Your task to perform on an android device: Go to ESPN.com Image 0: 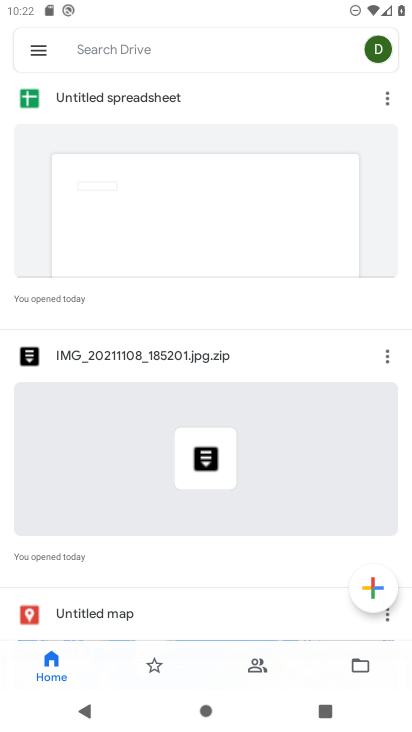
Step 0: press home button
Your task to perform on an android device: Go to ESPN.com Image 1: 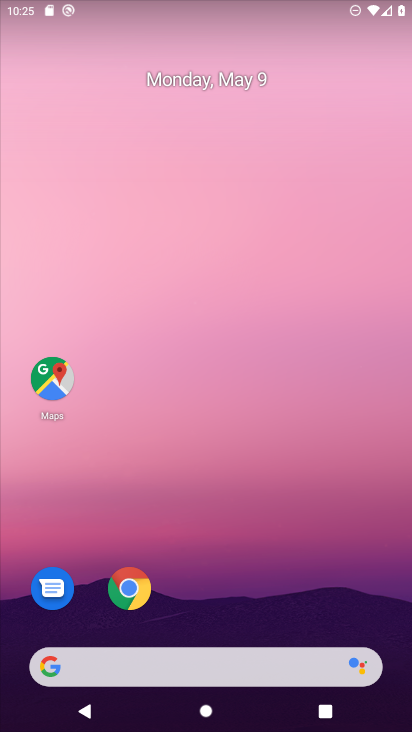
Step 1: click (139, 592)
Your task to perform on an android device: Go to ESPN.com Image 2: 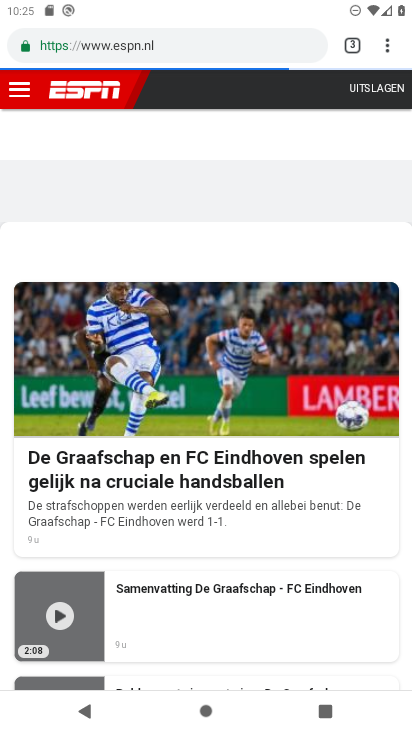
Step 2: task complete